Your task to perform on an android device: turn on priority inbox in the gmail app Image 0: 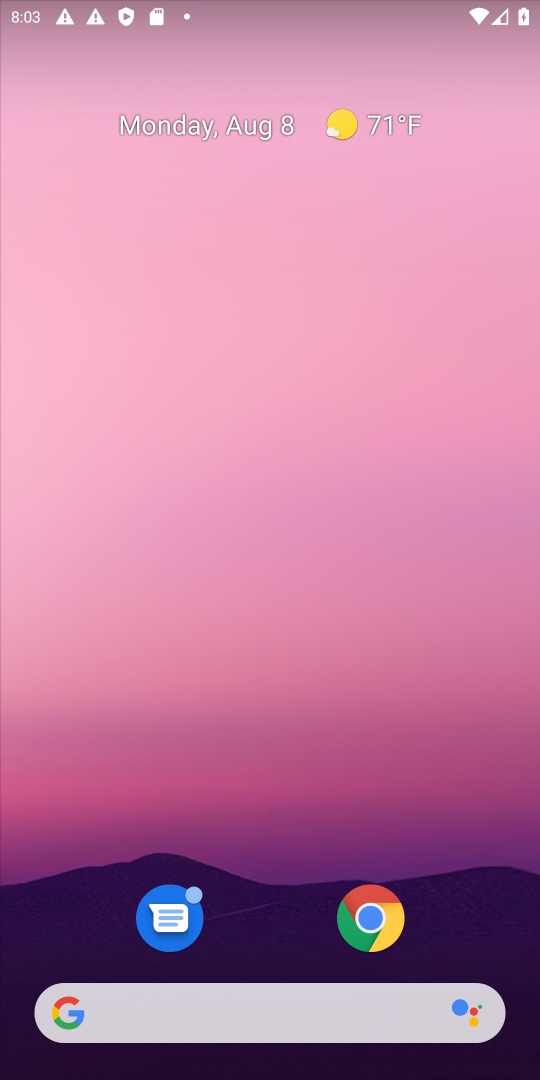
Step 0: drag from (502, 984) to (224, 156)
Your task to perform on an android device: turn on priority inbox in the gmail app Image 1: 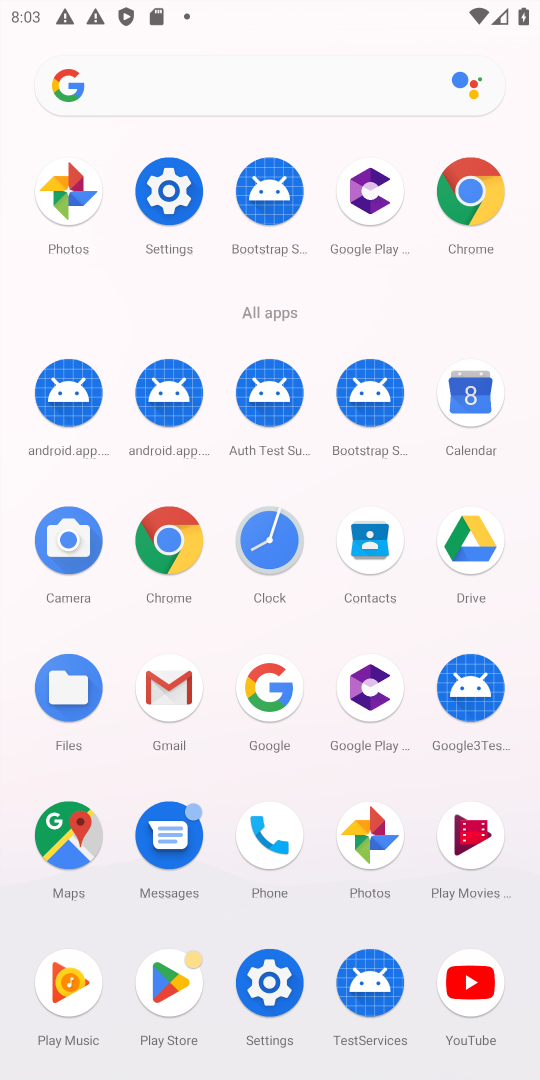
Step 1: click (156, 670)
Your task to perform on an android device: turn on priority inbox in the gmail app Image 2: 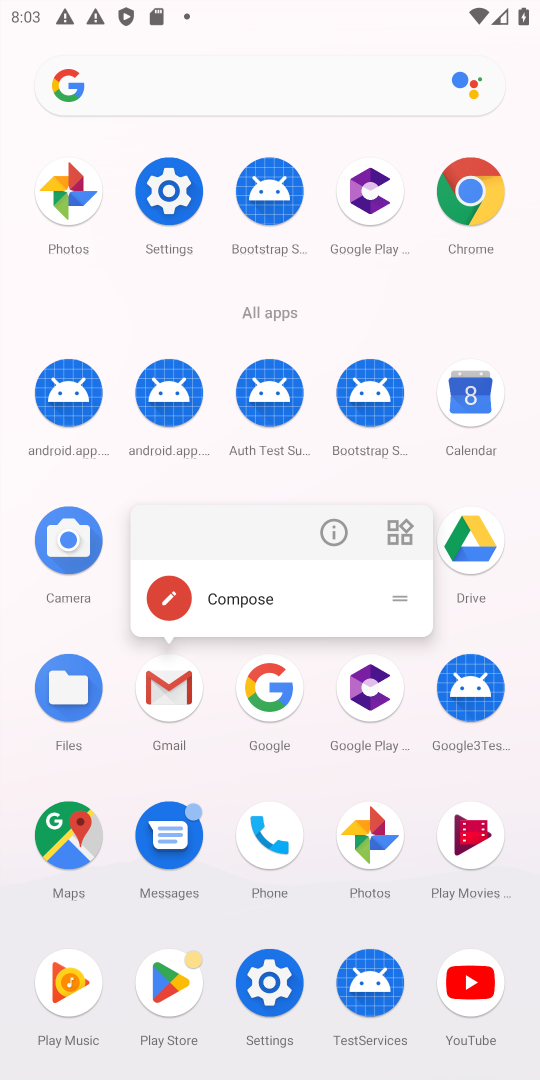
Step 2: click (182, 679)
Your task to perform on an android device: turn on priority inbox in the gmail app Image 3: 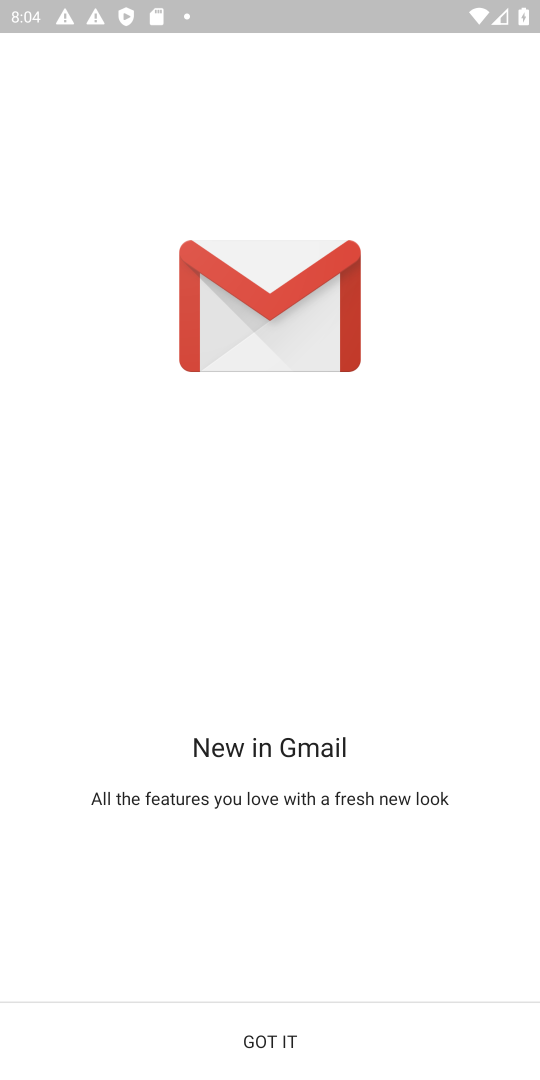
Step 3: click (279, 1036)
Your task to perform on an android device: turn on priority inbox in the gmail app Image 4: 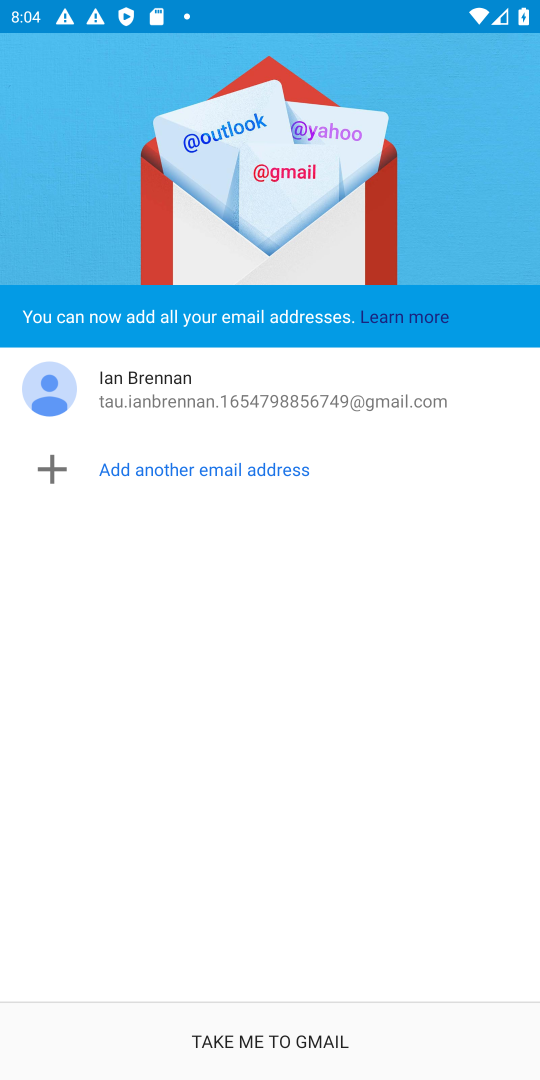
Step 4: click (311, 1029)
Your task to perform on an android device: turn on priority inbox in the gmail app Image 5: 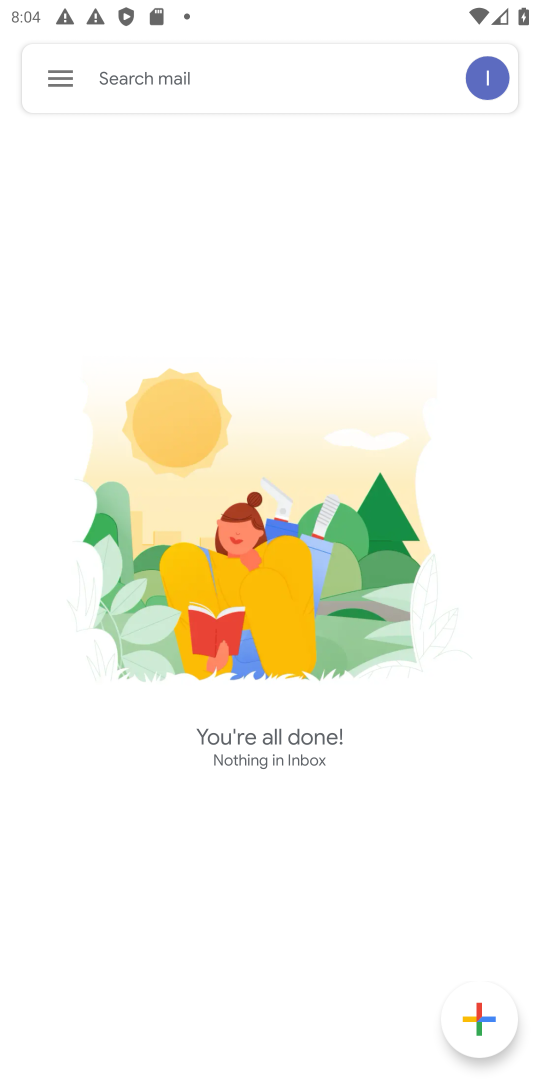
Step 5: click (51, 81)
Your task to perform on an android device: turn on priority inbox in the gmail app Image 6: 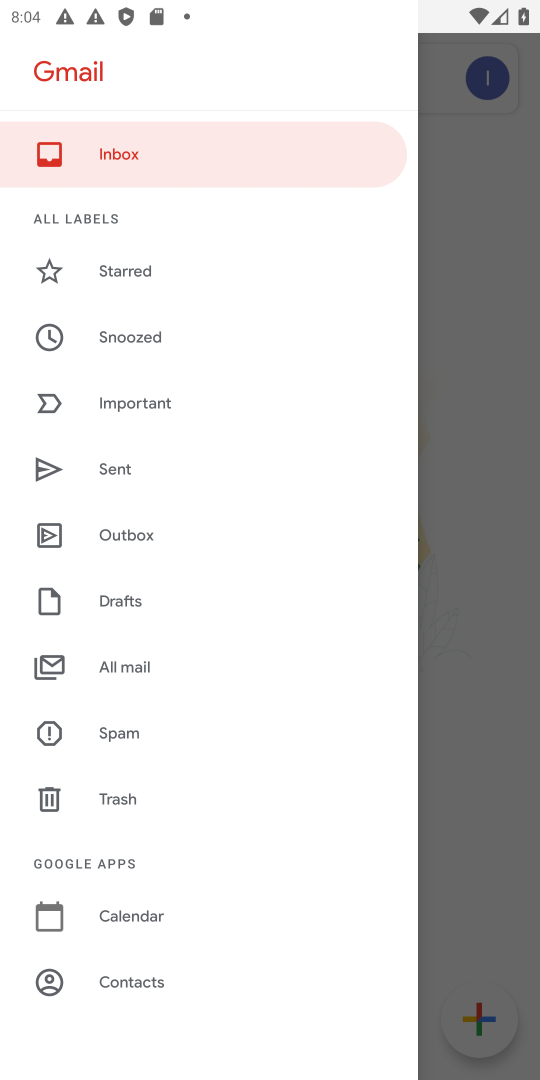
Step 6: drag from (215, 939) to (248, 473)
Your task to perform on an android device: turn on priority inbox in the gmail app Image 7: 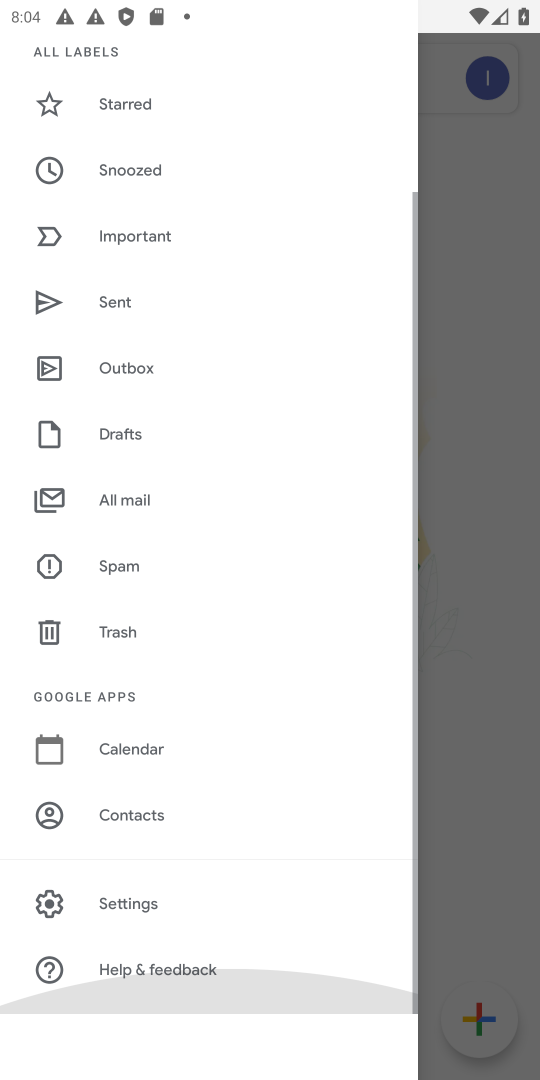
Step 7: drag from (252, 936) to (274, 434)
Your task to perform on an android device: turn on priority inbox in the gmail app Image 8: 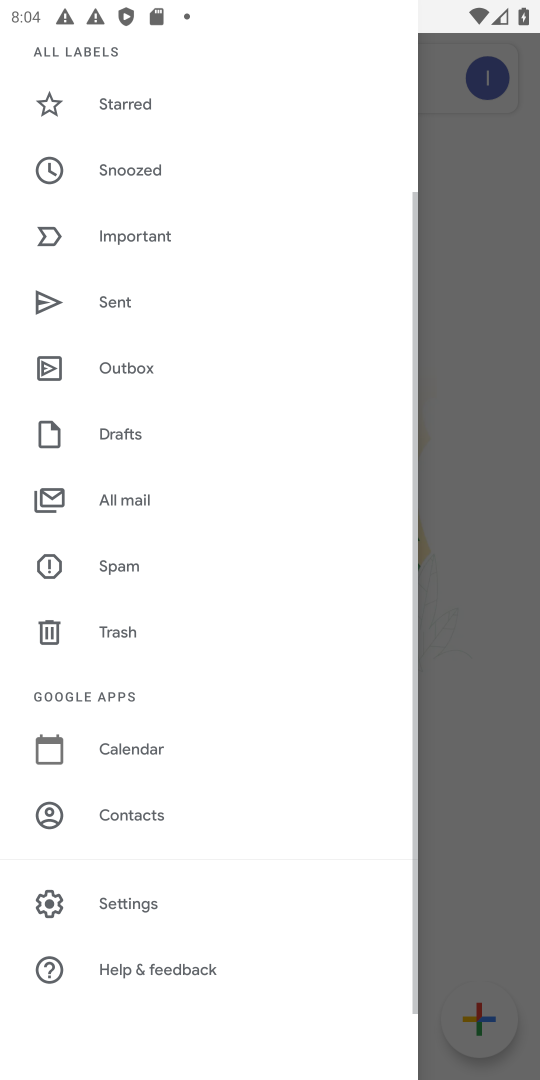
Step 8: click (126, 906)
Your task to perform on an android device: turn on priority inbox in the gmail app Image 9: 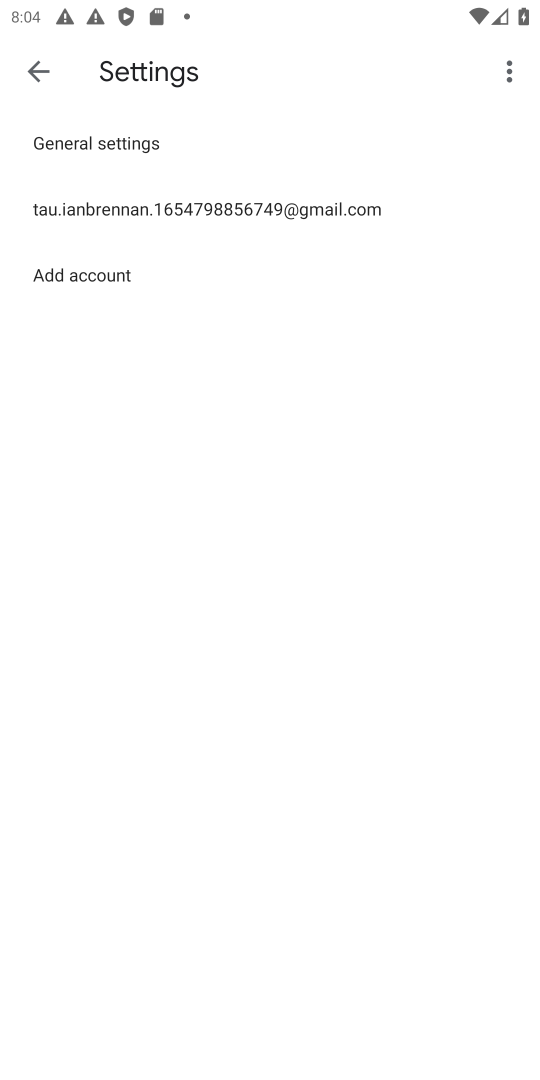
Step 9: click (215, 188)
Your task to perform on an android device: turn on priority inbox in the gmail app Image 10: 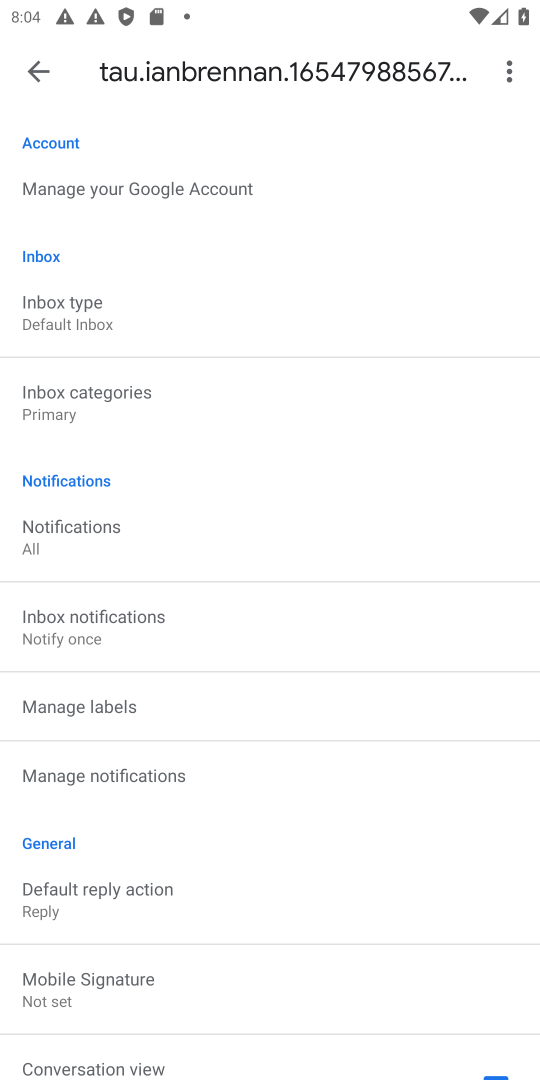
Step 10: click (104, 320)
Your task to perform on an android device: turn on priority inbox in the gmail app Image 11: 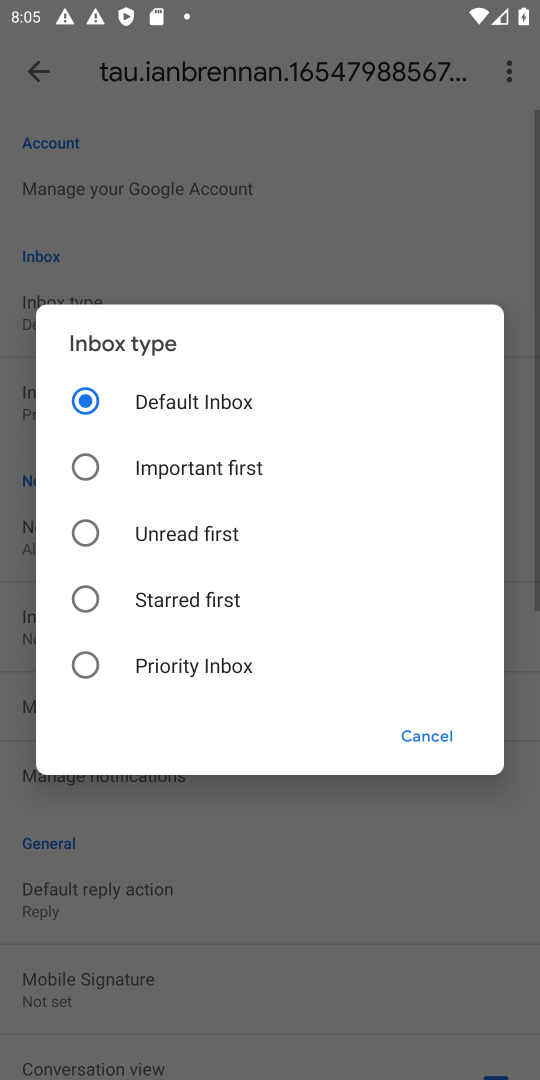
Step 11: click (202, 657)
Your task to perform on an android device: turn on priority inbox in the gmail app Image 12: 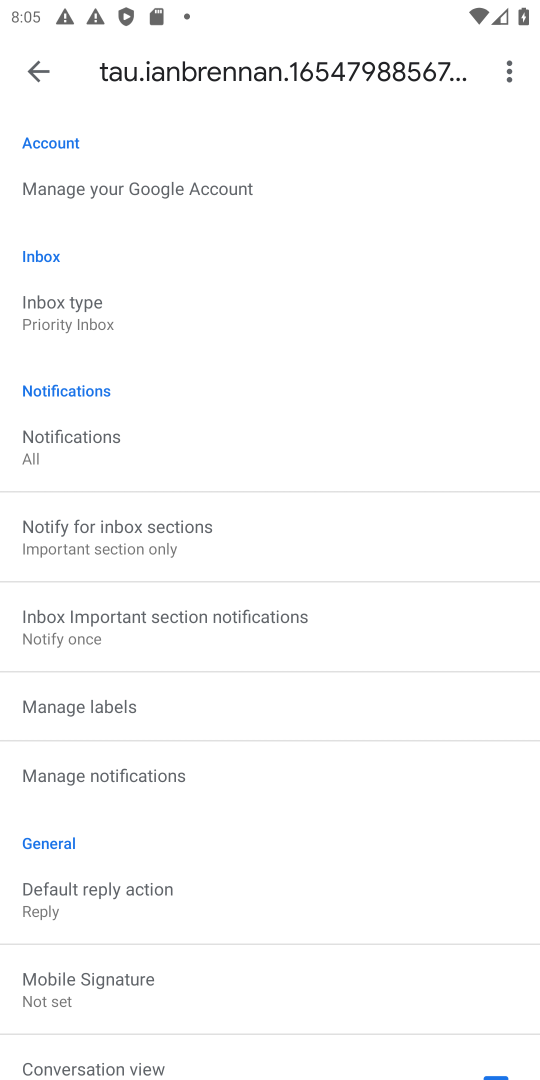
Step 12: task complete